Your task to perform on an android device: When is my next appointment? Image 0: 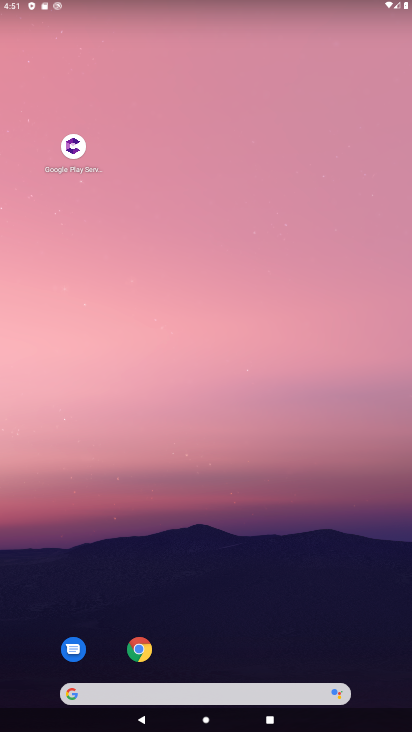
Step 0: drag from (238, 647) to (239, 119)
Your task to perform on an android device: When is my next appointment? Image 1: 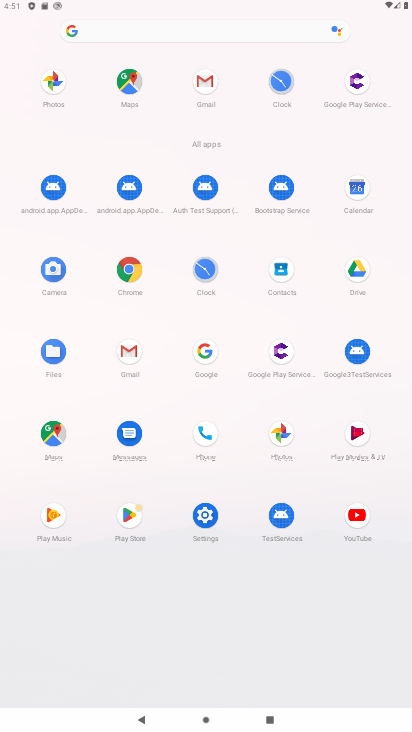
Step 1: click (353, 188)
Your task to perform on an android device: When is my next appointment? Image 2: 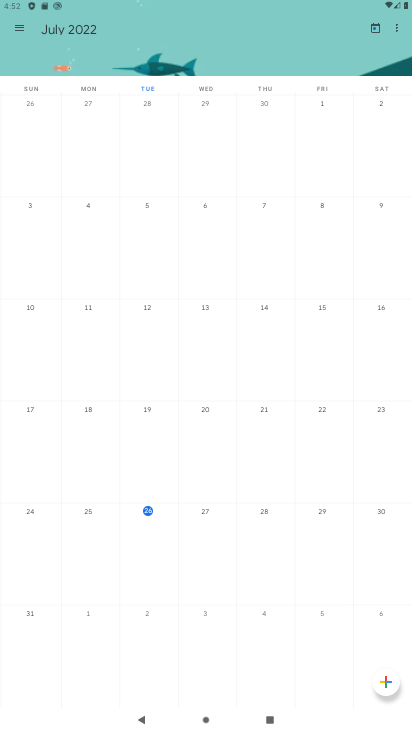
Step 2: click (17, 31)
Your task to perform on an android device: When is my next appointment? Image 3: 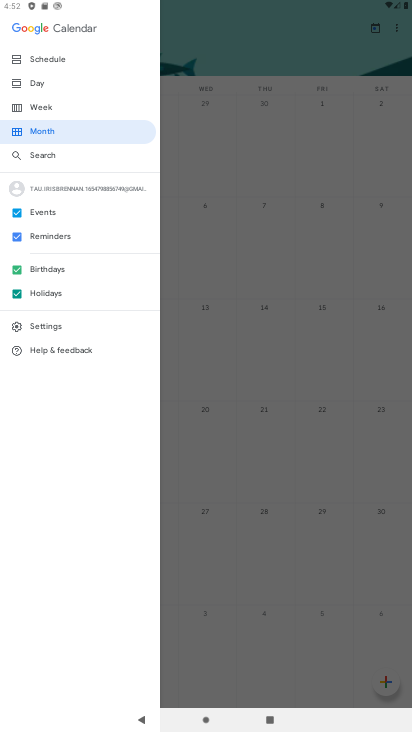
Step 3: click (62, 62)
Your task to perform on an android device: When is my next appointment? Image 4: 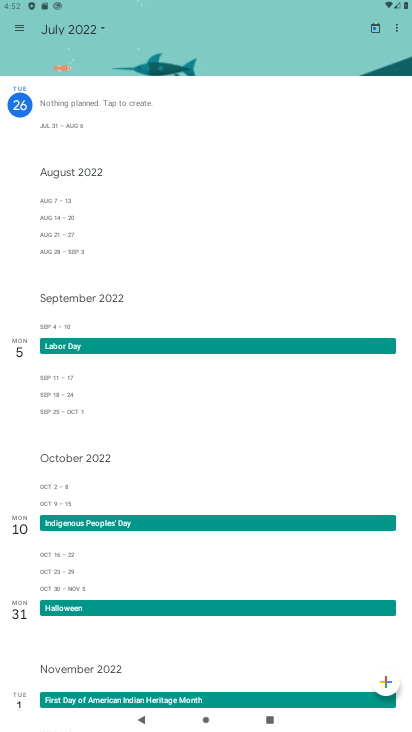
Step 4: task complete